Your task to perform on an android device: find photos in the google photos app Image 0: 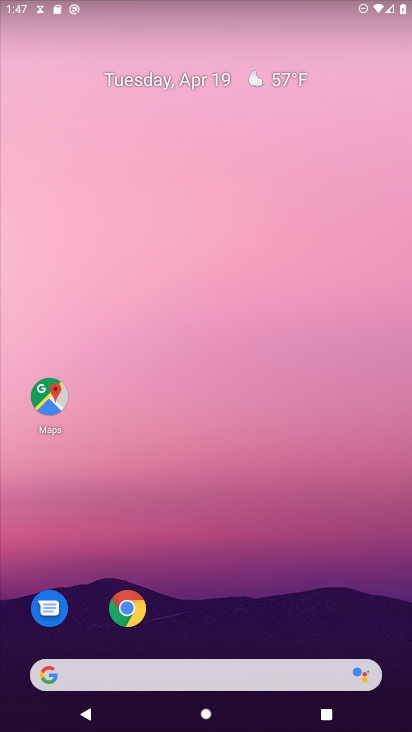
Step 0: drag from (201, 589) to (130, 153)
Your task to perform on an android device: find photos in the google photos app Image 1: 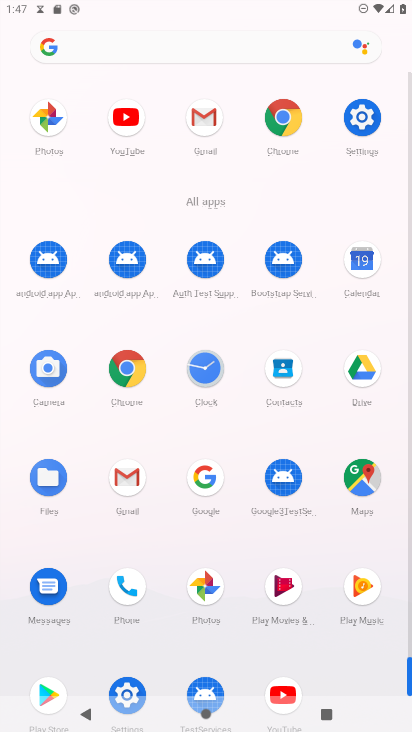
Step 1: click (199, 593)
Your task to perform on an android device: find photos in the google photos app Image 2: 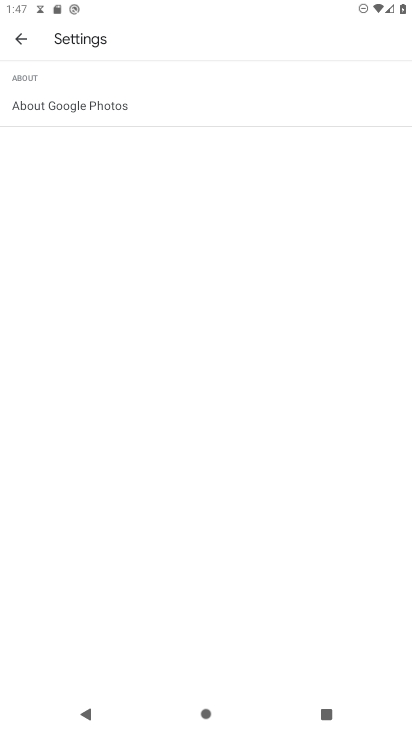
Step 2: click (23, 35)
Your task to perform on an android device: find photos in the google photos app Image 3: 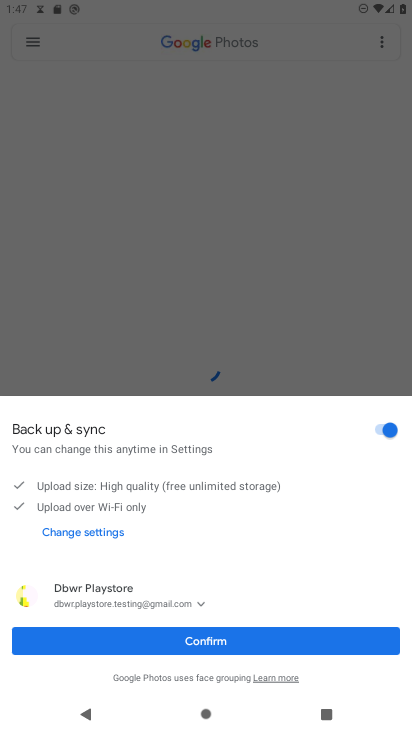
Step 3: click (217, 636)
Your task to perform on an android device: find photos in the google photos app Image 4: 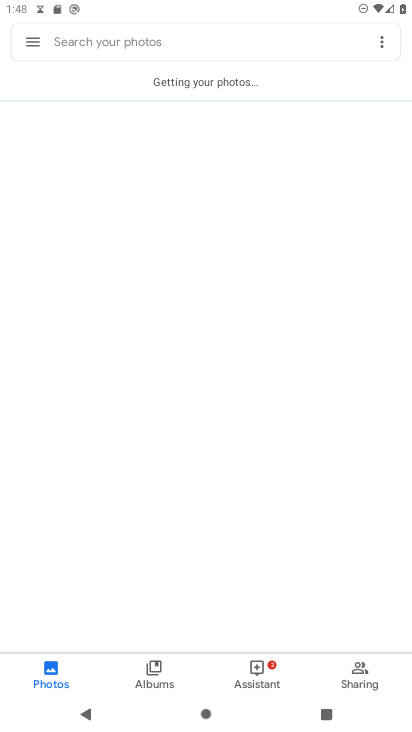
Step 4: click (220, 464)
Your task to perform on an android device: find photos in the google photos app Image 5: 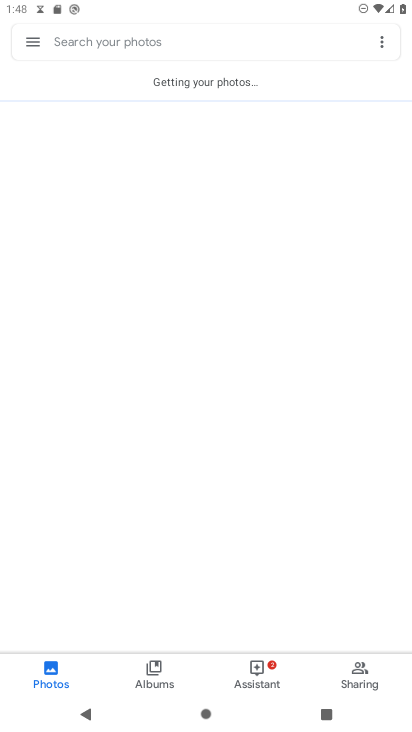
Step 5: click (173, 192)
Your task to perform on an android device: find photos in the google photos app Image 6: 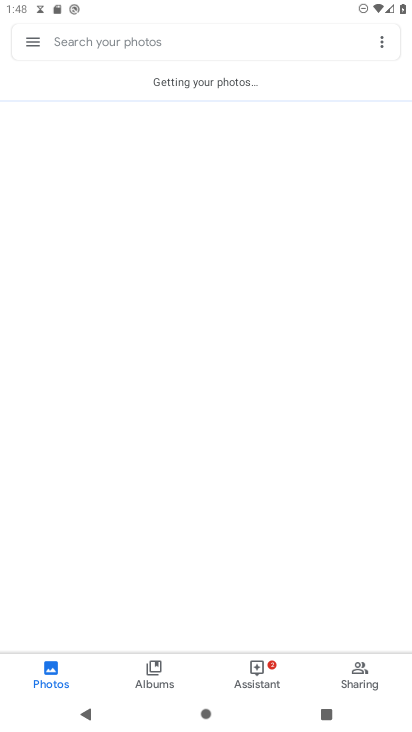
Step 6: click (152, 670)
Your task to perform on an android device: find photos in the google photos app Image 7: 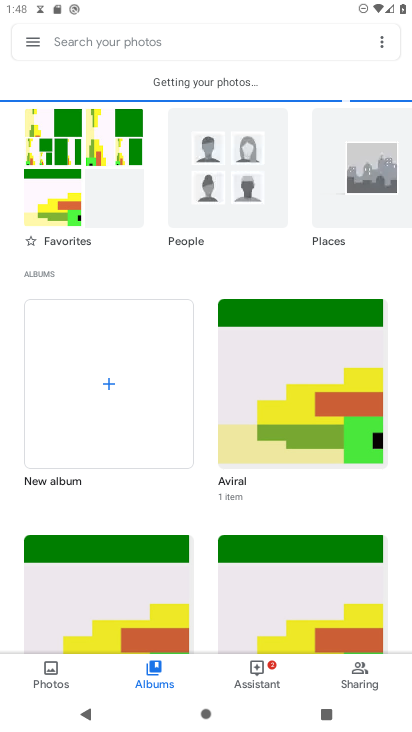
Step 7: drag from (169, 539) to (173, 167)
Your task to perform on an android device: find photos in the google photos app Image 8: 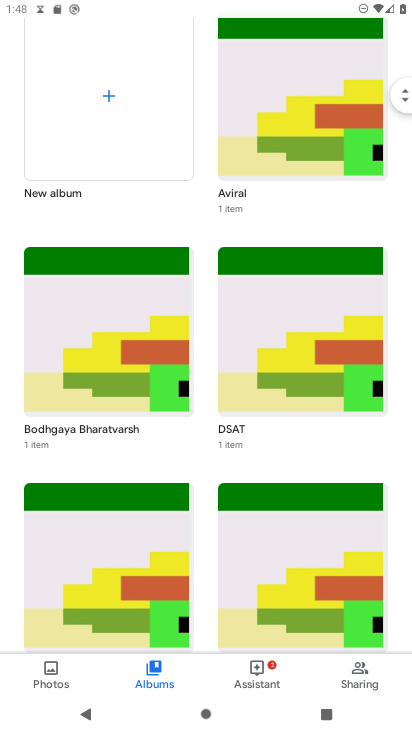
Step 8: drag from (209, 578) to (187, 137)
Your task to perform on an android device: find photos in the google photos app Image 9: 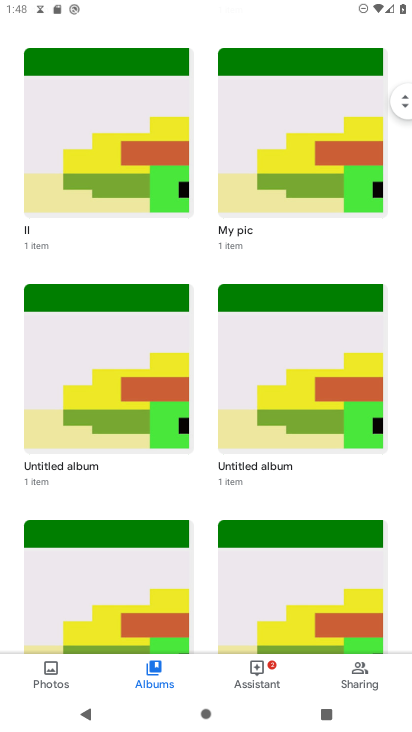
Step 9: drag from (82, 541) to (71, 177)
Your task to perform on an android device: find photos in the google photos app Image 10: 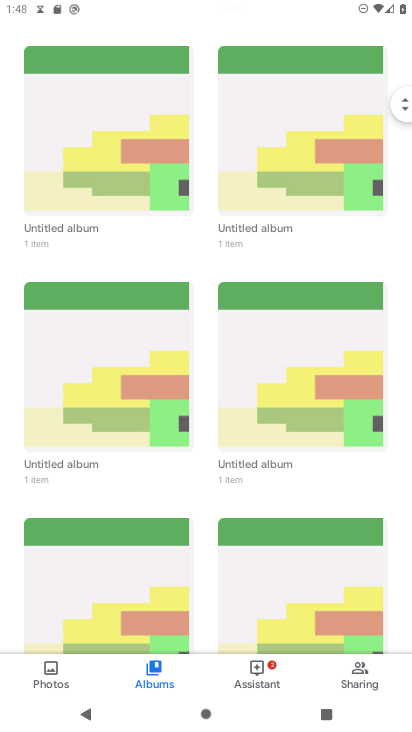
Step 10: click (49, 671)
Your task to perform on an android device: find photos in the google photos app Image 11: 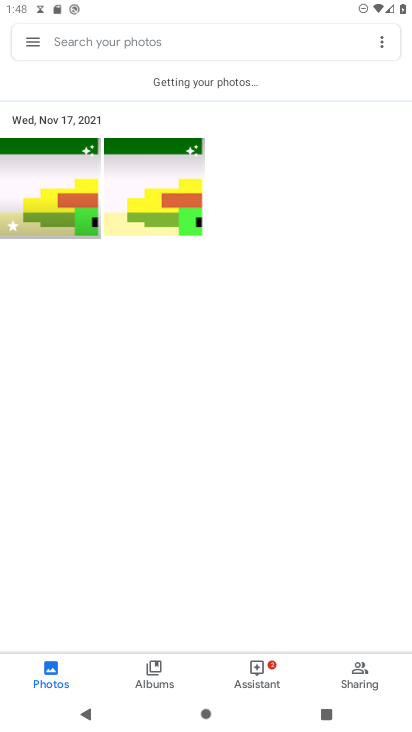
Step 11: task complete